Your task to perform on an android device: toggle notifications settings in the gmail app Image 0: 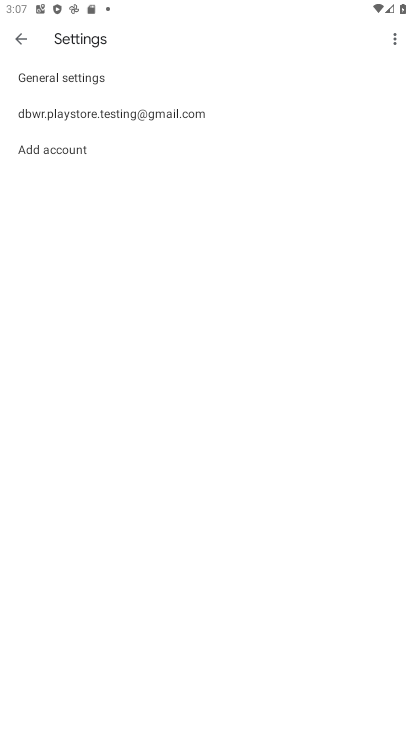
Step 0: press home button
Your task to perform on an android device: toggle notifications settings in the gmail app Image 1: 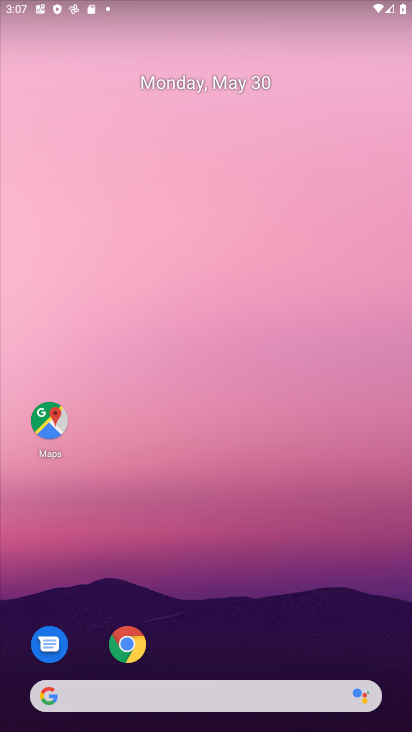
Step 1: drag from (239, 625) to (206, 39)
Your task to perform on an android device: toggle notifications settings in the gmail app Image 2: 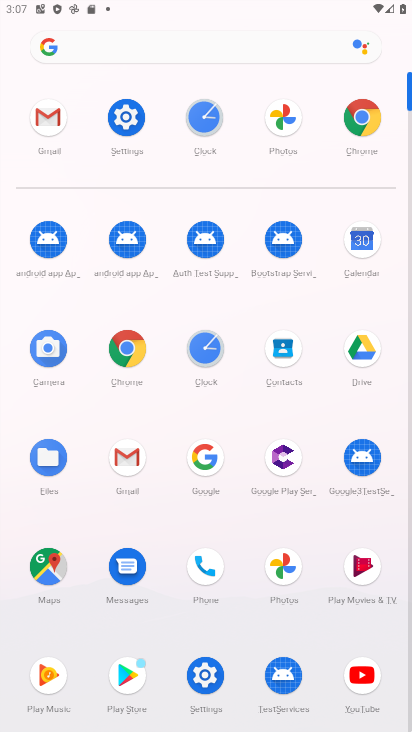
Step 2: click (48, 134)
Your task to perform on an android device: toggle notifications settings in the gmail app Image 3: 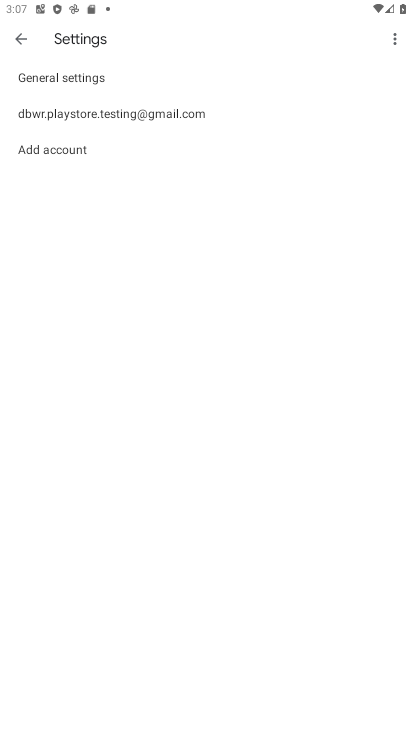
Step 3: click (56, 86)
Your task to perform on an android device: toggle notifications settings in the gmail app Image 4: 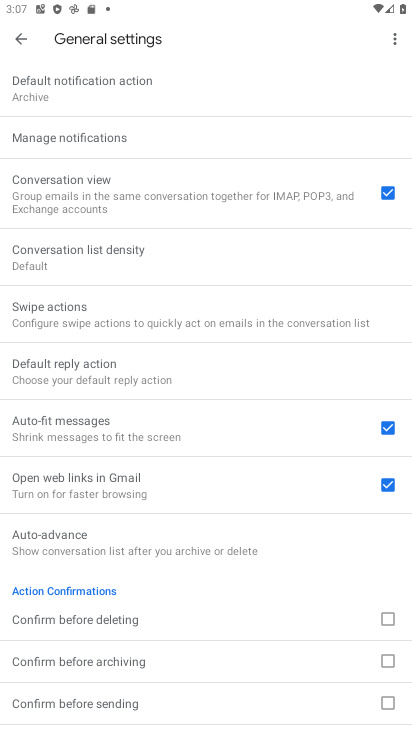
Step 4: click (172, 136)
Your task to perform on an android device: toggle notifications settings in the gmail app Image 5: 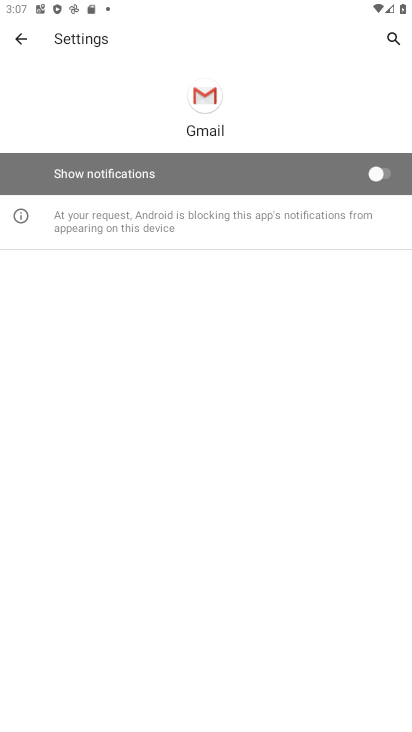
Step 5: click (343, 178)
Your task to perform on an android device: toggle notifications settings in the gmail app Image 6: 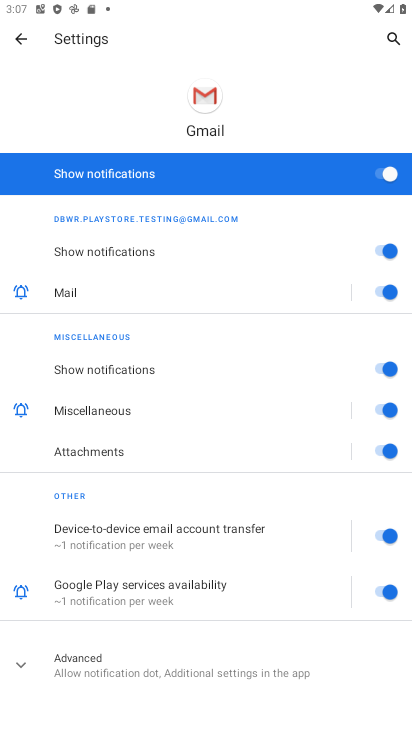
Step 6: task complete